Your task to perform on an android device: delete a single message in the gmail app Image 0: 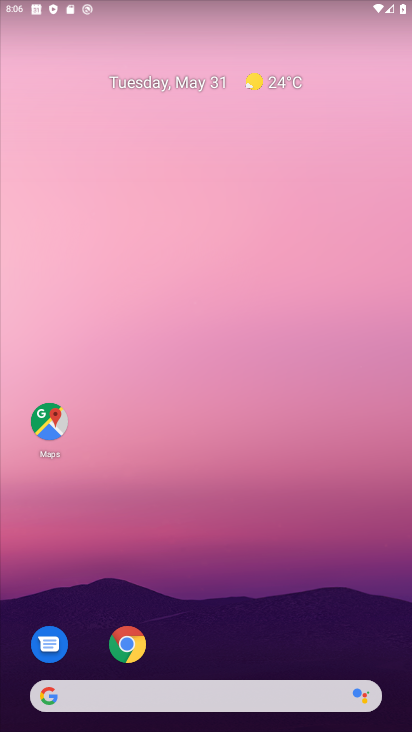
Step 0: drag from (150, 573) to (1, 66)
Your task to perform on an android device: delete a single message in the gmail app Image 1: 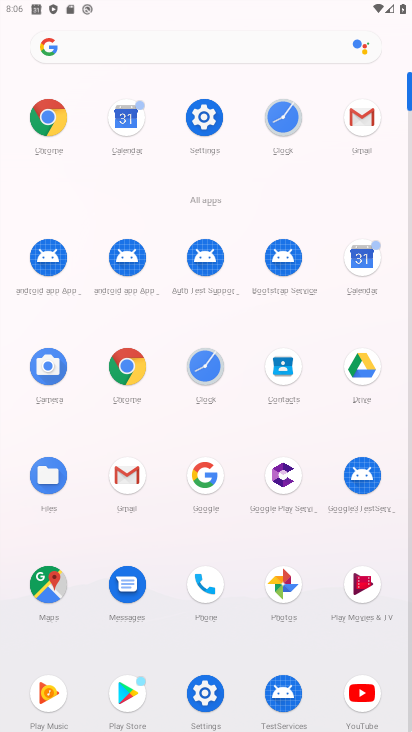
Step 1: click (355, 122)
Your task to perform on an android device: delete a single message in the gmail app Image 2: 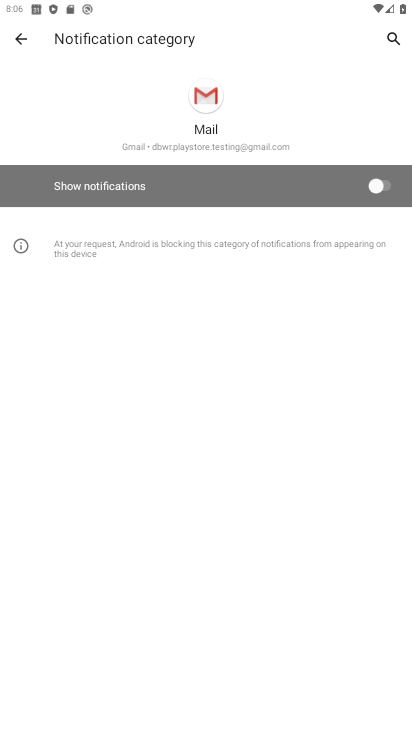
Step 2: click (21, 43)
Your task to perform on an android device: delete a single message in the gmail app Image 3: 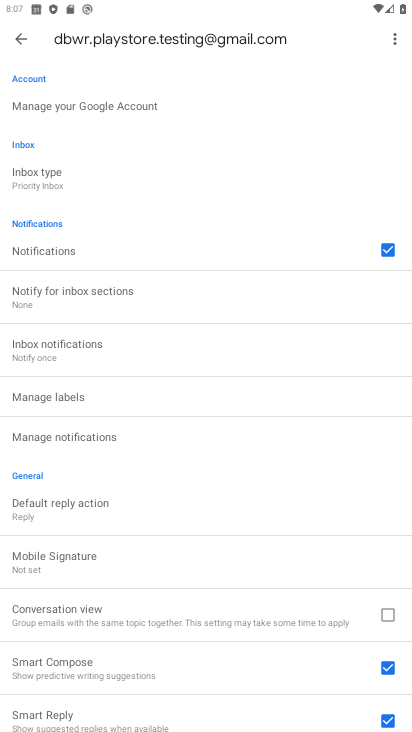
Step 3: click (15, 37)
Your task to perform on an android device: delete a single message in the gmail app Image 4: 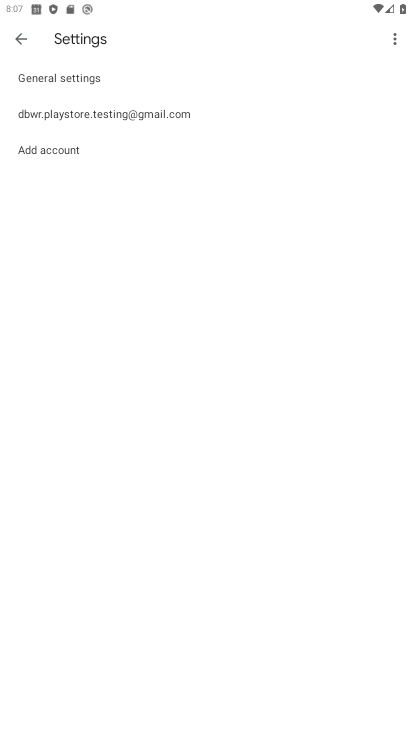
Step 4: click (15, 37)
Your task to perform on an android device: delete a single message in the gmail app Image 5: 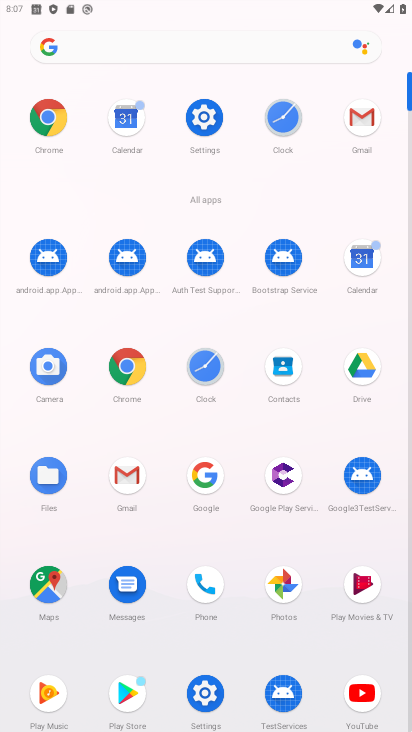
Step 5: click (121, 474)
Your task to perform on an android device: delete a single message in the gmail app Image 6: 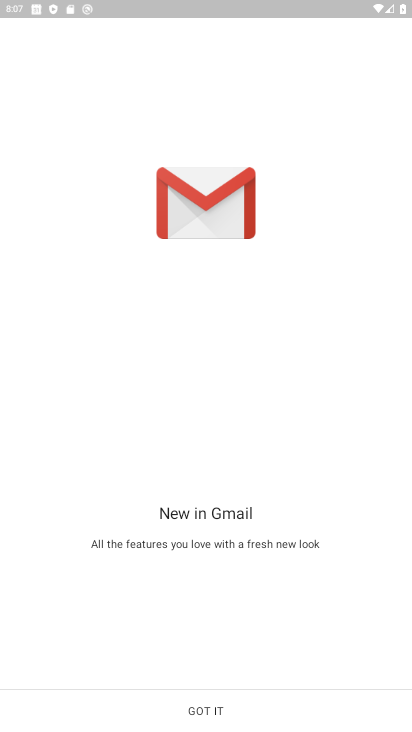
Step 6: click (195, 697)
Your task to perform on an android device: delete a single message in the gmail app Image 7: 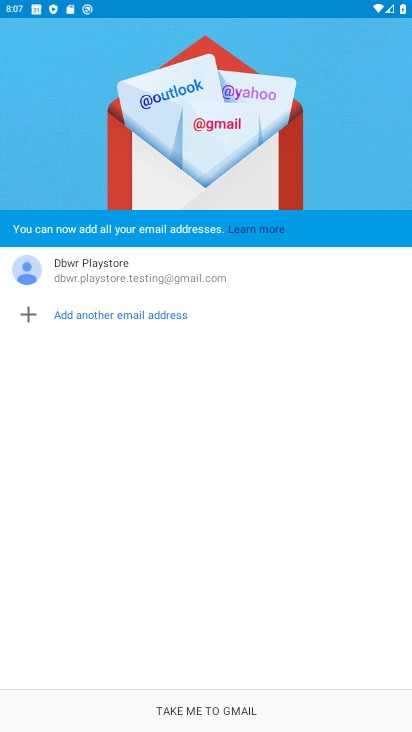
Step 7: click (249, 709)
Your task to perform on an android device: delete a single message in the gmail app Image 8: 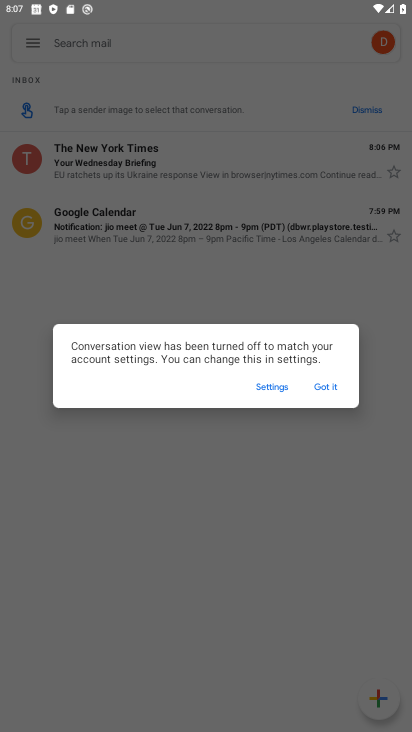
Step 8: click (322, 395)
Your task to perform on an android device: delete a single message in the gmail app Image 9: 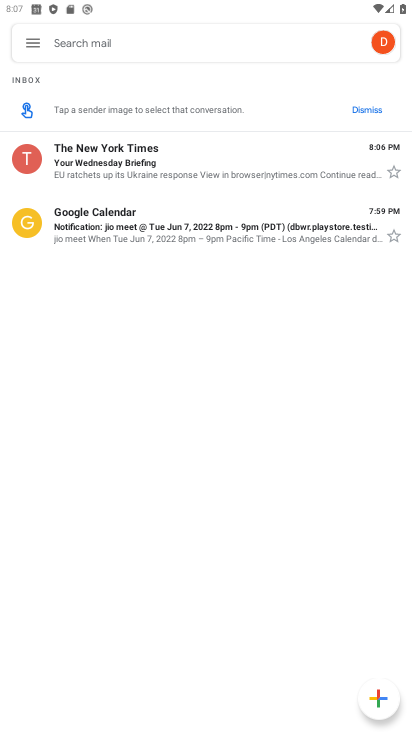
Step 9: click (192, 219)
Your task to perform on an android device: delete a single message in the gmail app Image 10: 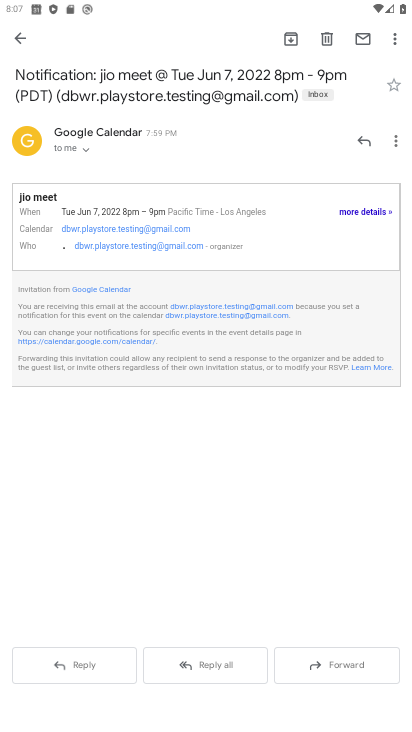
Step 10: click (322, 43)
Your task to perform on an android device: delete a single message in the gmail app Image 11: 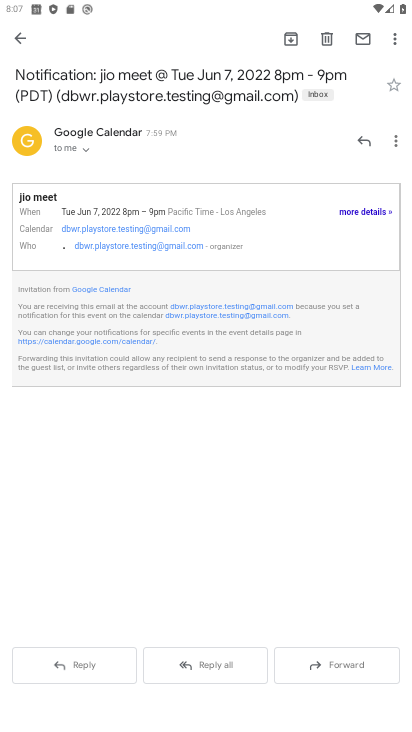
Step 11: click (323, 36)
Your task to perform on an android device: delete a single message in the gmail app Image 12: 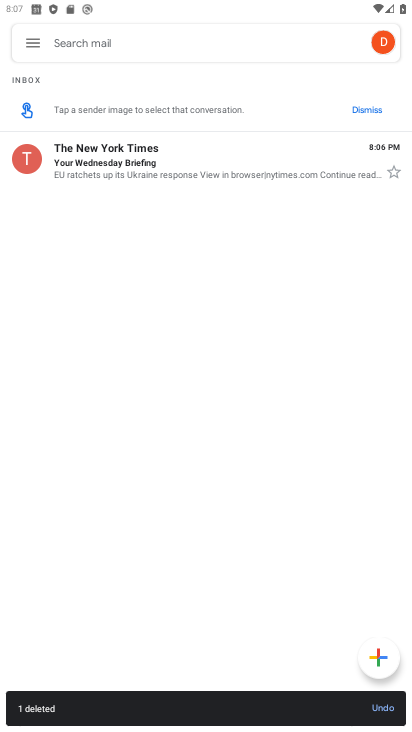
Step 12: task complete